Your task to perform on an android device: turn off location Image 0: 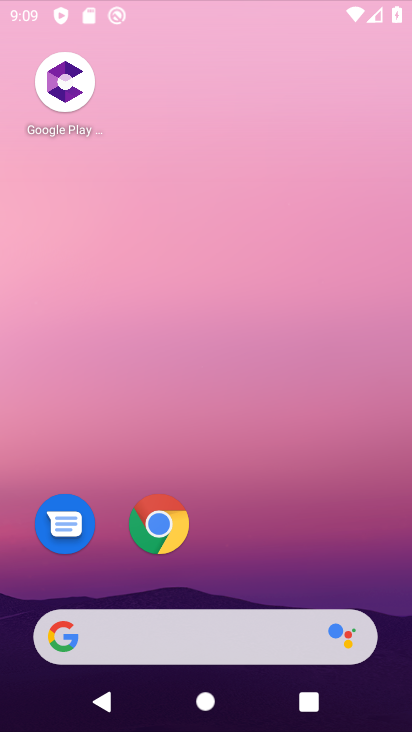
Step 0: click (193, 160)
Your task to perform on an android device: turn off location Image 1: 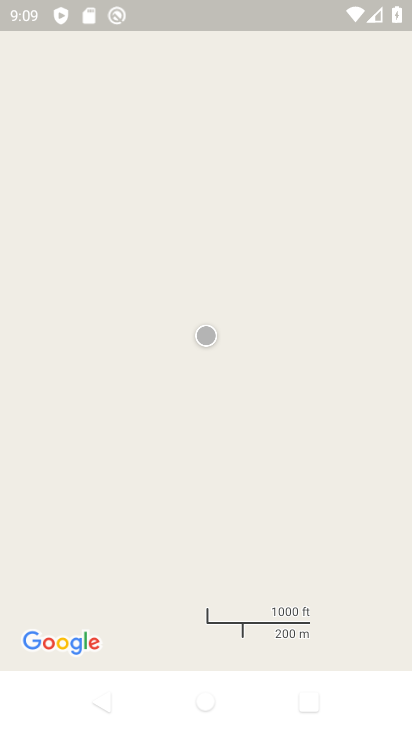
Step 1: press home button
Your task to perform on an android device: turn off location Image 2: 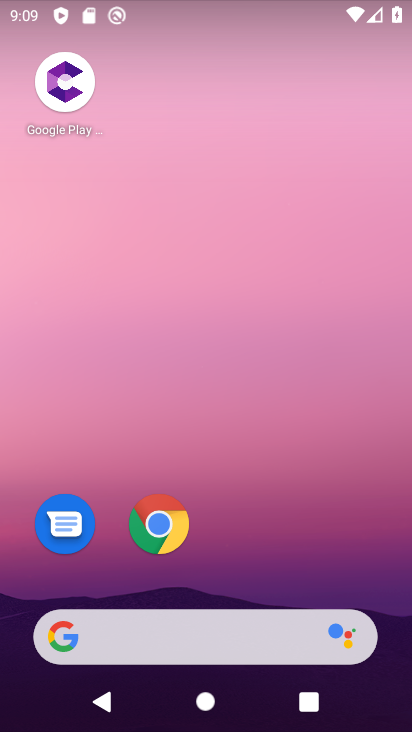
Step 2: drag from (218, 568) to (218, 163)
Your task to perform on an android device: turn off location Image 3: 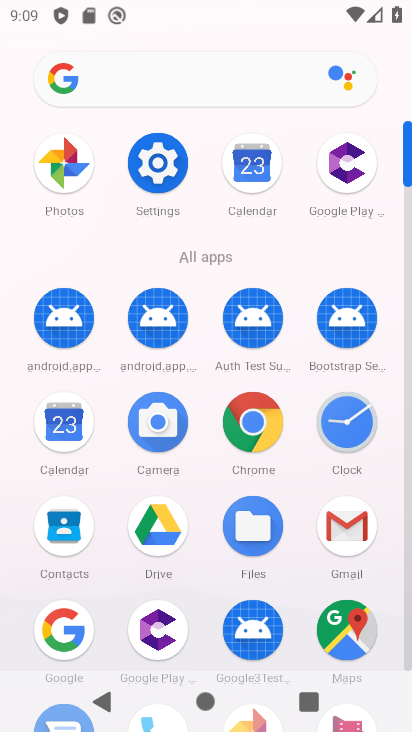
Step 3: click (176, 198)
Your task to perform on an android device: turn off location Image 4: 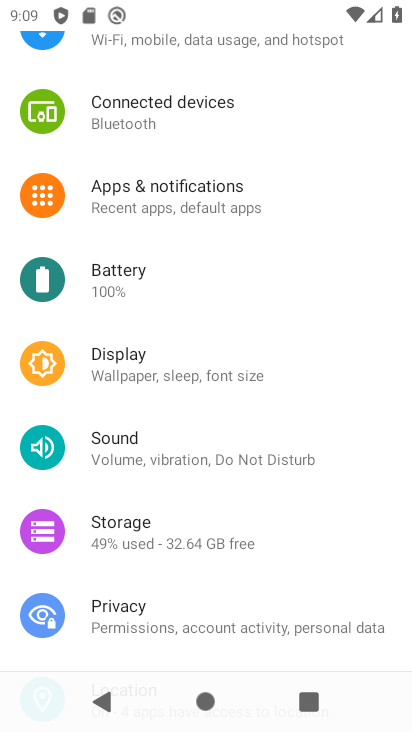
Step 4: drag from (150, 521) to (159, 212)
Your task to perform on an android device: turn off location Image 5: 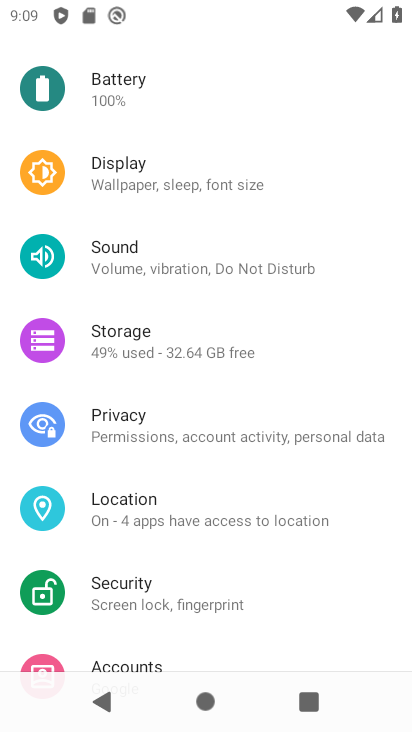
Step 5: click (151, 525)
Your task to perform on an android device: turn off location Image 6: 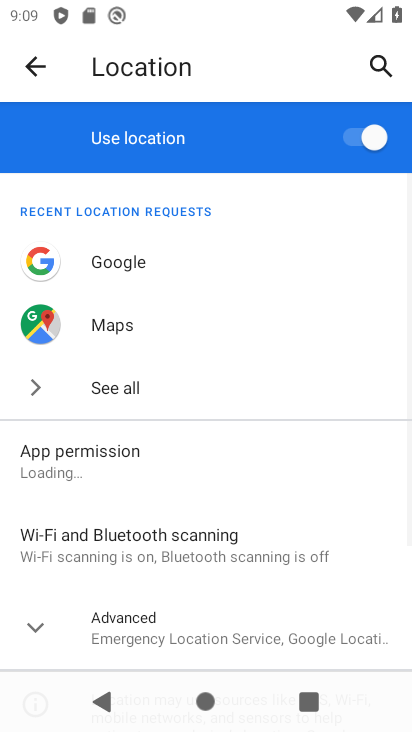
Step 6: click (355, 125)
Your task to perform on an android device: turn off location Image 7: 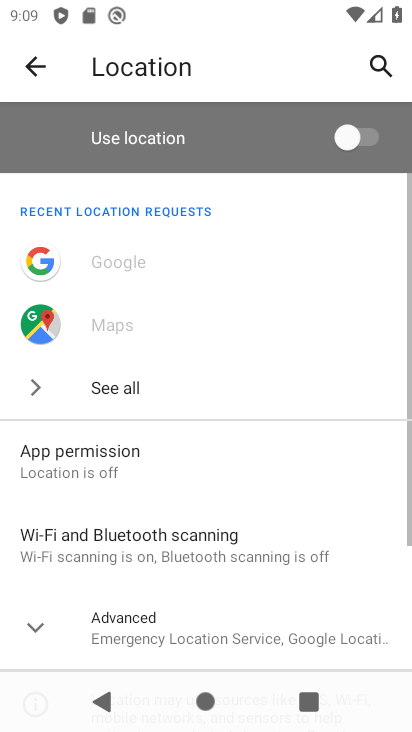
Step 7: task complete